Your task to perform on an android device: Open calendar and show me the third week of next month Image 0: 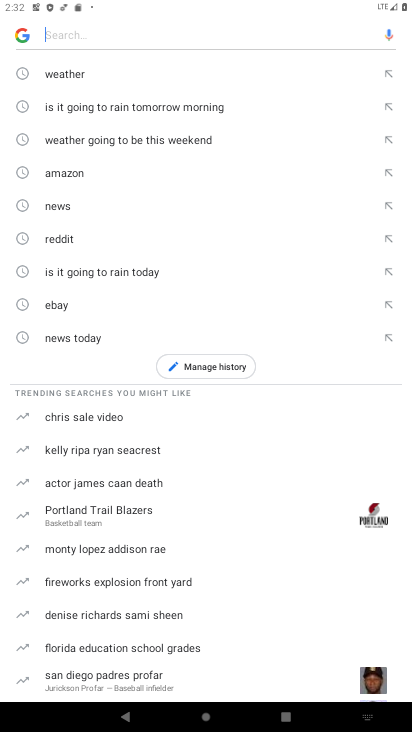
Step 0: press home button
Your task to perform on an android device: Open calendar and show me the third week of next month Image 1: 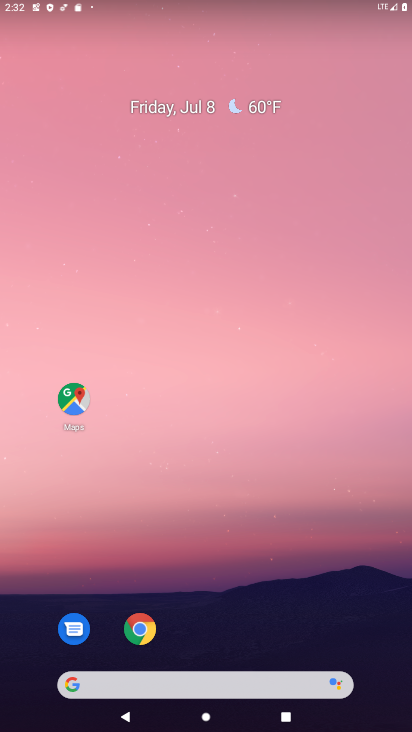
Step 1: drag from (213, 613) to (211, 278)
Your task to perform on an android device: Open calendar and show me the third week of next month Image 2: 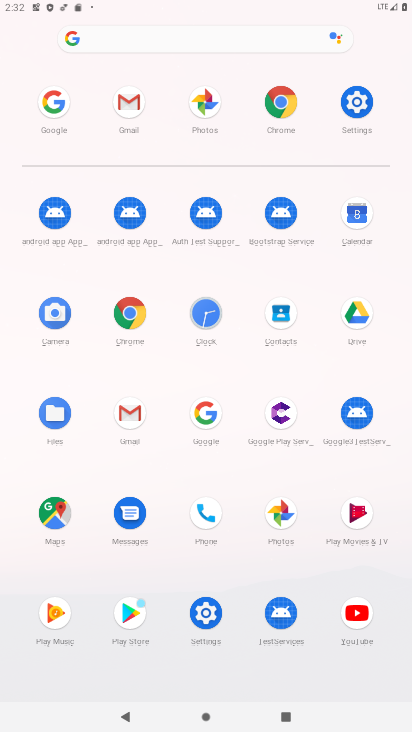
Step 2: click (340, 220)
Your task to perform on an android device: Open calendar and show me the third week of next month Image 3: 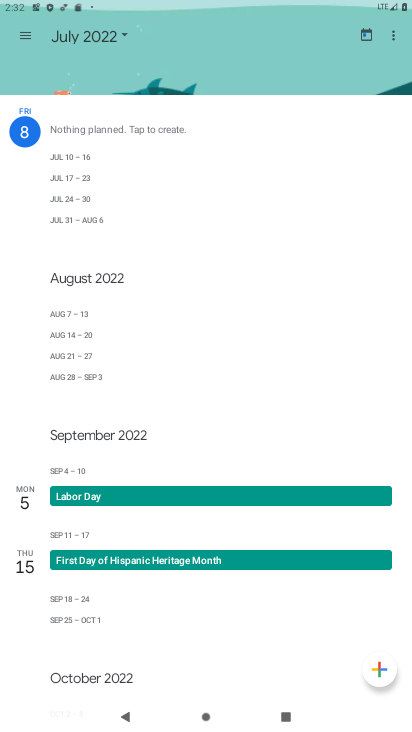
Step 3: click (114, 35)
Your task to perform on an android device: Open calendar and show me the third week of next month Image 4: 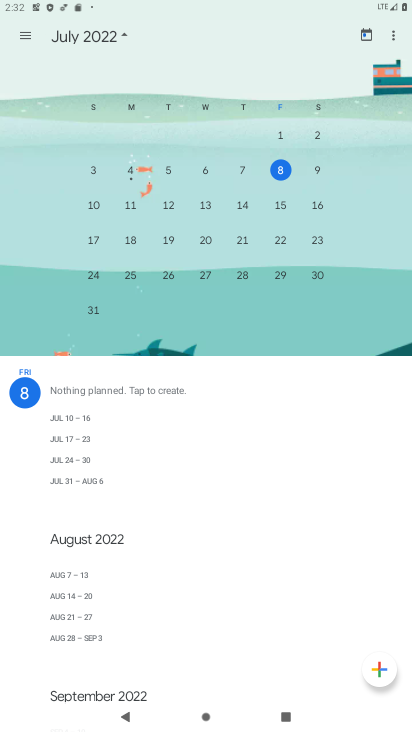
Step 4: drag from (366, 197) to (56, 207)
Your task to perform on an android device: Open calendar and show me the third week of next month Image 5: 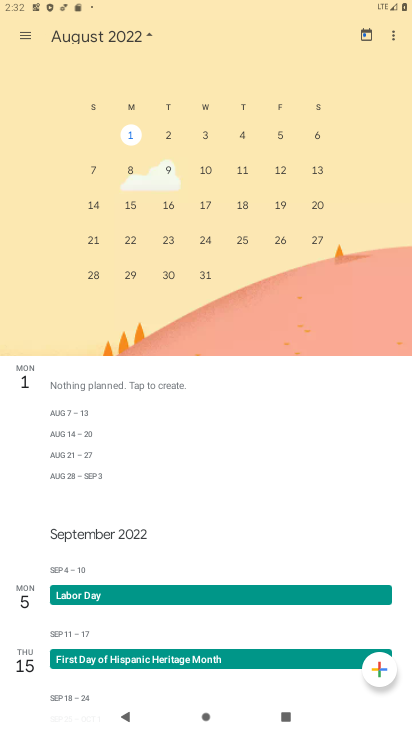
Step 5: click (133, 204)
Your task to perform on an android device: Open calendar and show me the third week of next month Image 6: 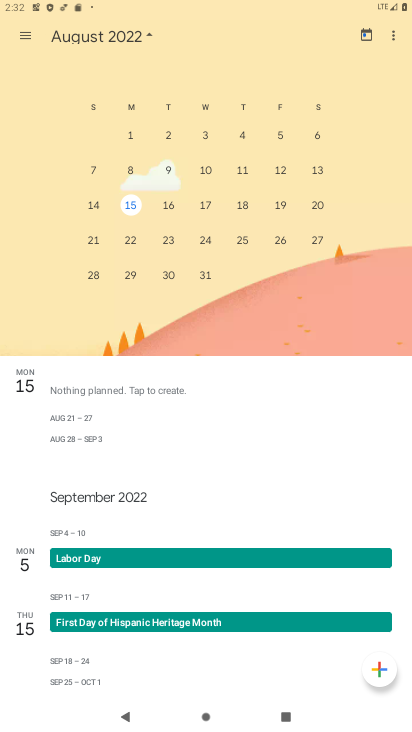
Step 6: click (99, 210)
Your task to perform on an android device: Open calendar and show me the third week of next month Image 7: 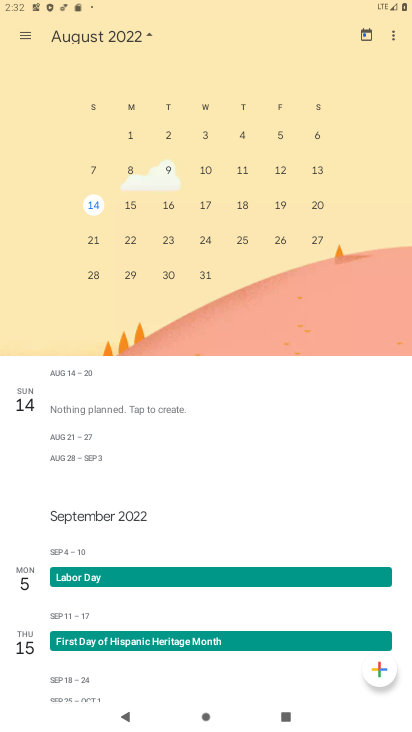
Step 7: task complete